Your task to perform on an android device: Go to internet settings Image 0: 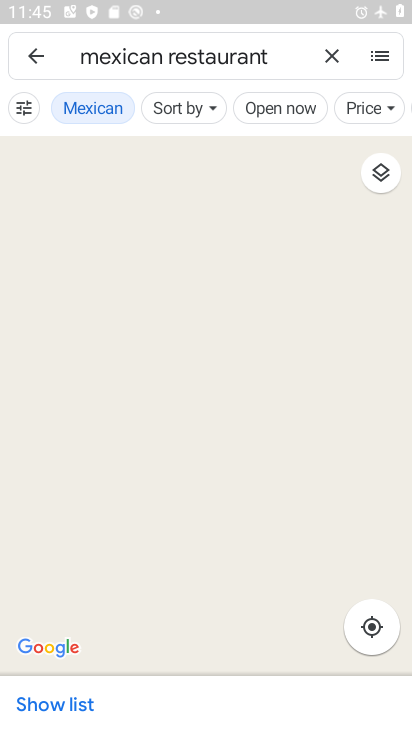
Step 0: press home button
Your task to perform on an android device: Go to internet settings Image 1: 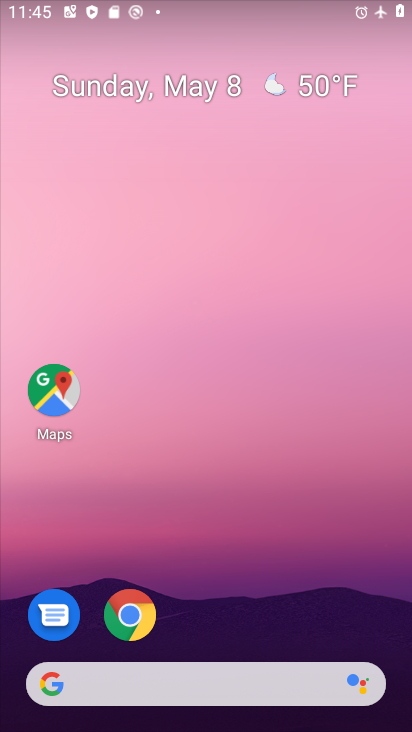
Step 1: drag from (317, 719) to (189, 347)
Your task to perform on an android device: Go to internet settings Image 2: 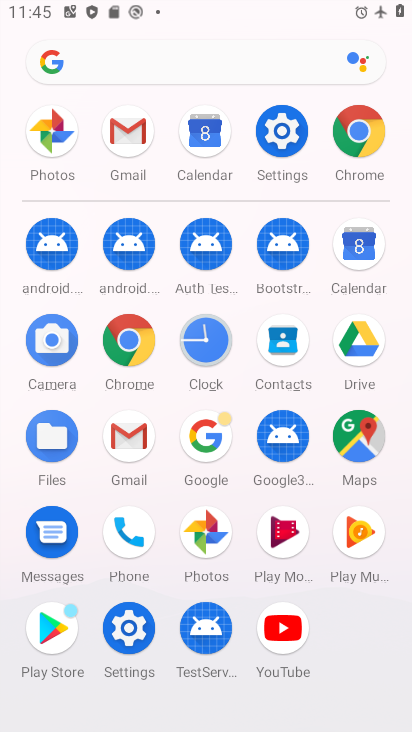
Step 2: click (280, 137)
Your task to perform on an android device: Go to internet settings Image 3: 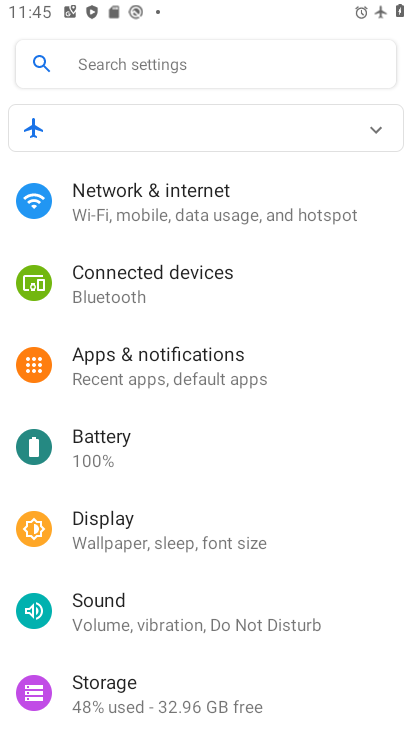
Step 3: click (185, 196)
Your task to perform on an android device: Go to internet settings Image 4: 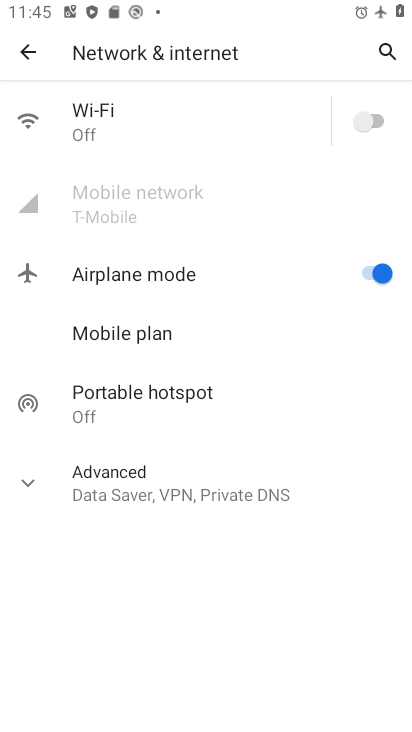
Step 4: task complete